Your task to perform on an android device: change text size in settings app Image 0: 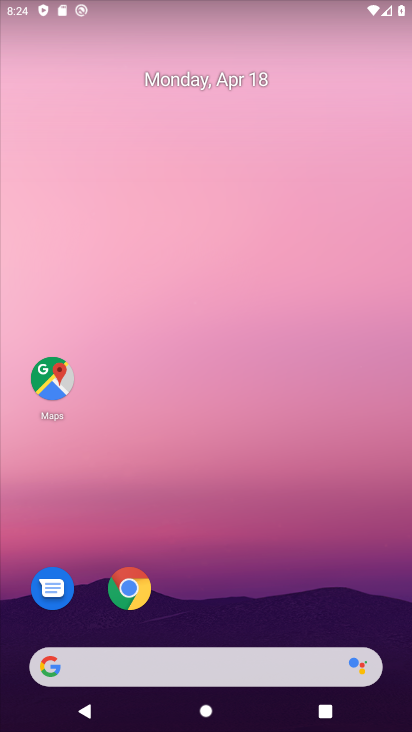
Step 0: drag from (26, 520) to (193, 86)
Your task to perform on an android device: change text size in settings app Image 1: 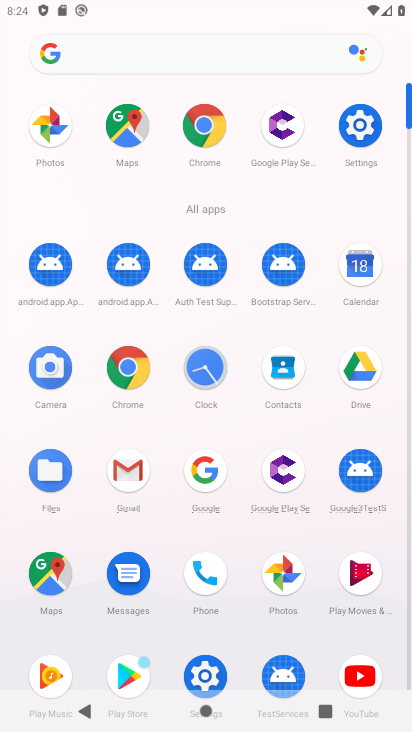
Step 1: click (205, 675)
Your task to perform on an android device: change text size in settings app Image 2: 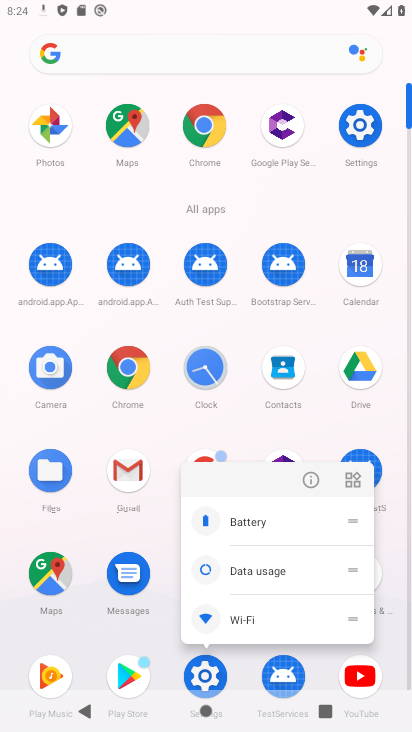
Step 2: click (205, 675)
Your task to perform on an android device: change text size in settings app Image 3: 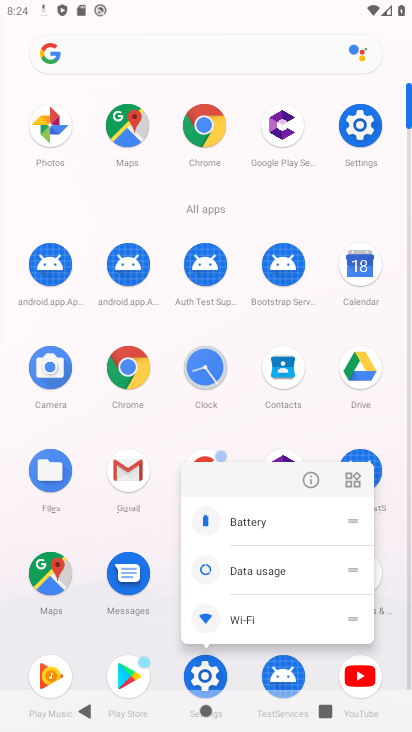
Step 3: click (205, 675)
Your task to perform on an android device: change text size in settings app Image 4: 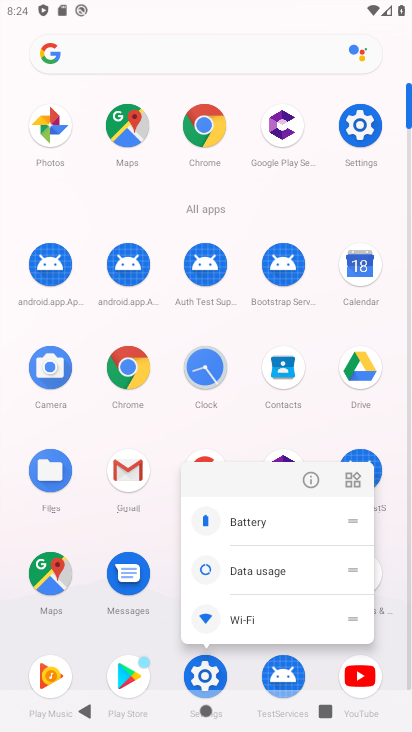
Step 4: click (205, 675)
Your task to perform on an android device: change text size in settings app Image 5: 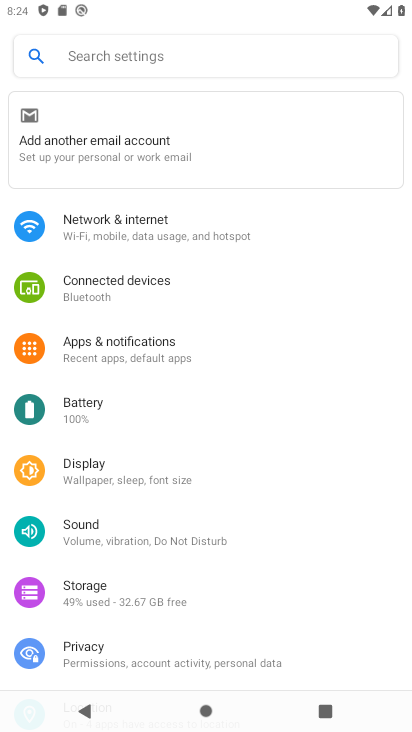
Step 5: click (123, 490)
Your task to perform on an android device: change text size in settings app Image 6: 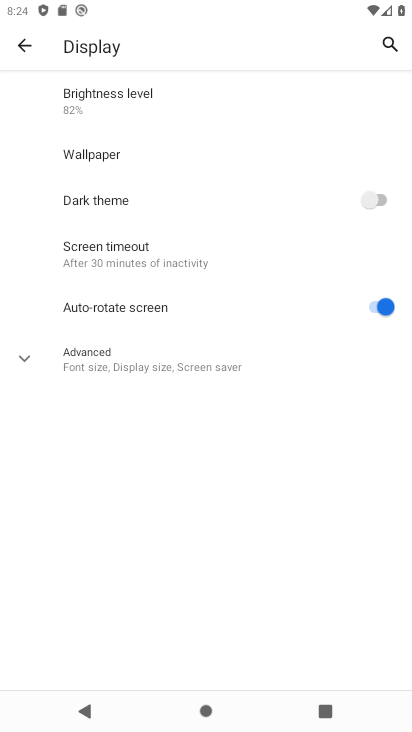
Step 6: click (88, 366)
Your task to perform on an android device: change text size in settings app Image 7: 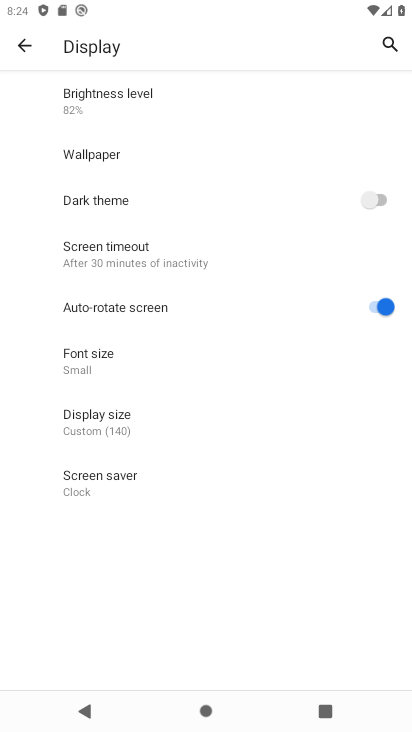
Step 7: click (119, 355)
Your task to perform on an android device: change text size in settings app Image 8: 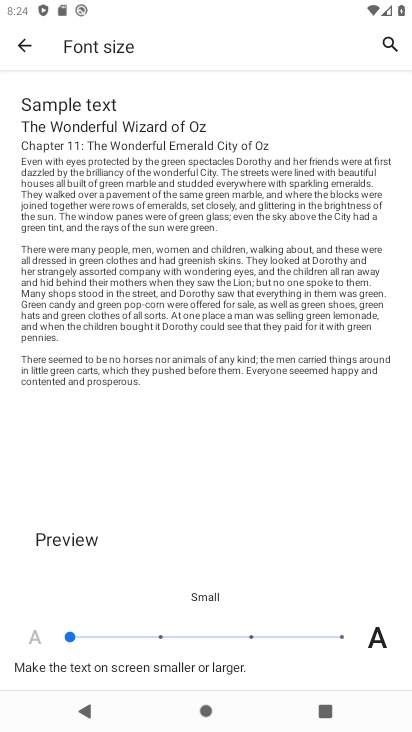
Step 8: click (162, 634)
Your task to perform on an android device: change text size in settings app Image 9: 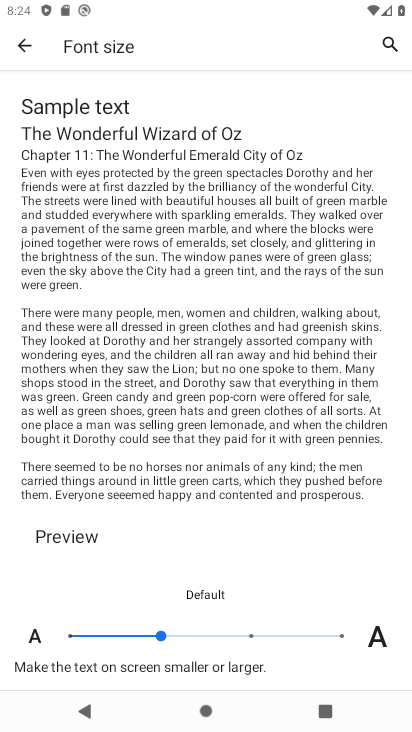
Step 9: task complete